Your task to perform on an android device: Open battery settings Image 0: 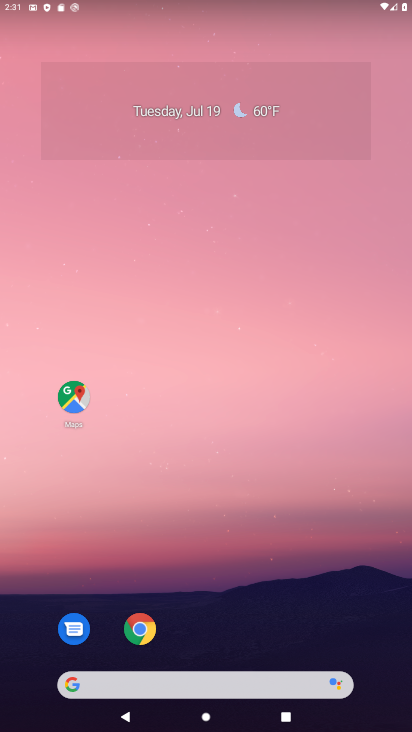
Step 0: drag from (285, 514) to (234, 100)
Your task to perform on an android device: Open battery settings Image 1: 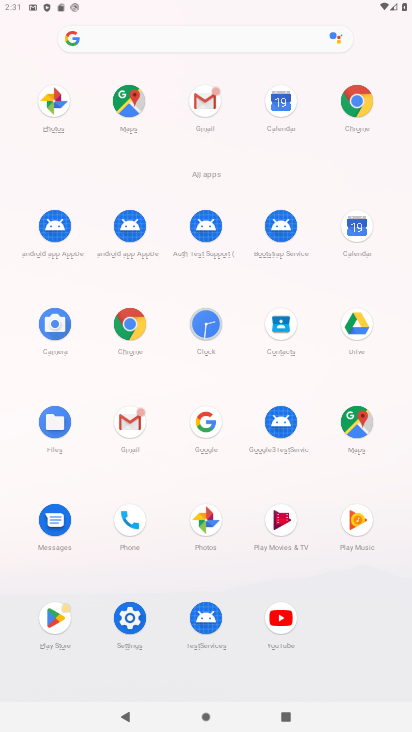
Step 1: click (136, 618)
Your task to perform on an android device: Open battery settings Image 2: 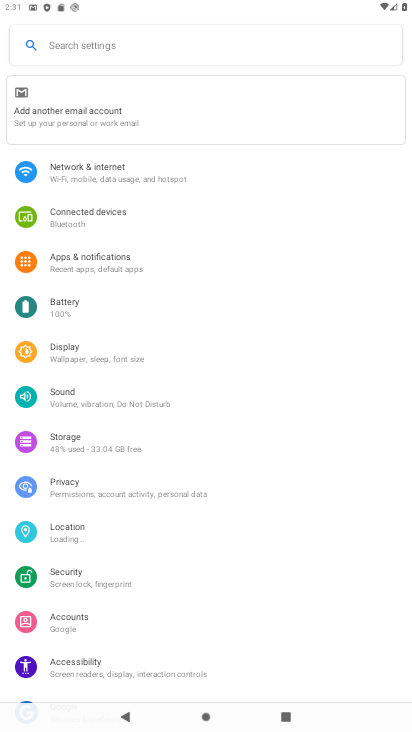
Step 2: click (76, 304)
Your task to perform on an android device: Open battery settings Image 3: 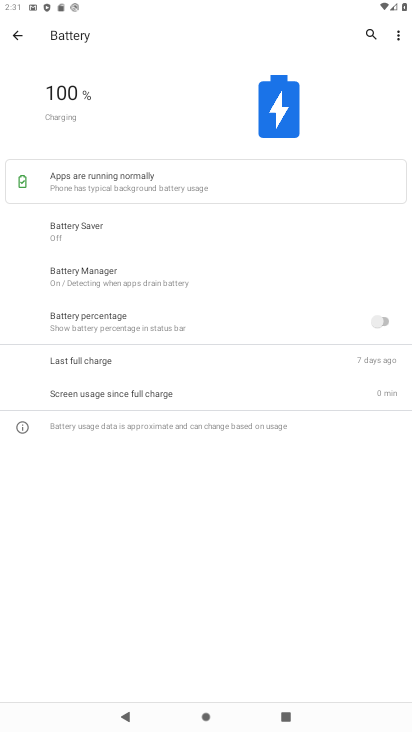
Step 3: task complete